Your task to perform on an android device: Check the news Image 0: 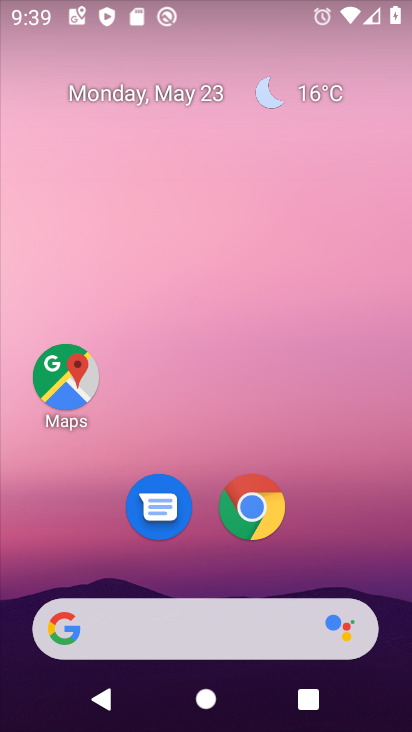
Step 0: click (116, 625)
Your task to perform on an android device: Check the news Image 1: 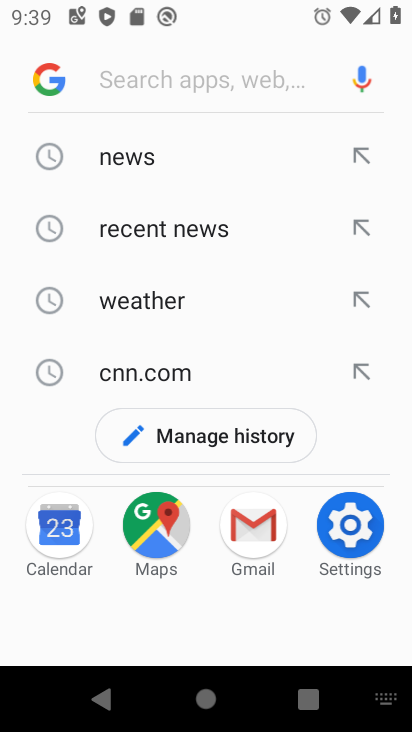
Step 1: click (134, 148)
Your task to perform on an android device: Check the news Image 2: 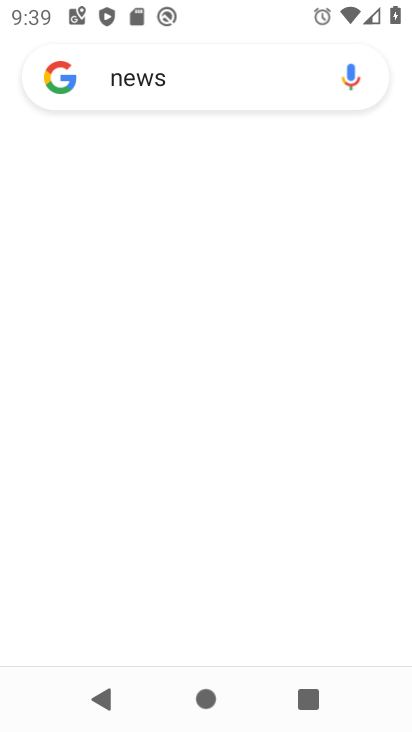
Step 2: click (143, 161)
Your task to perform on an android device: Check the news Image 3: 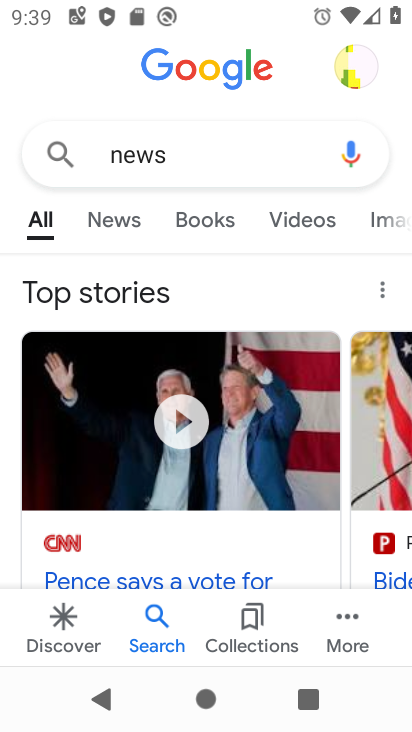
Step 3: click (108, 226)
Your task to perform on an android device: Check the news Image 4: 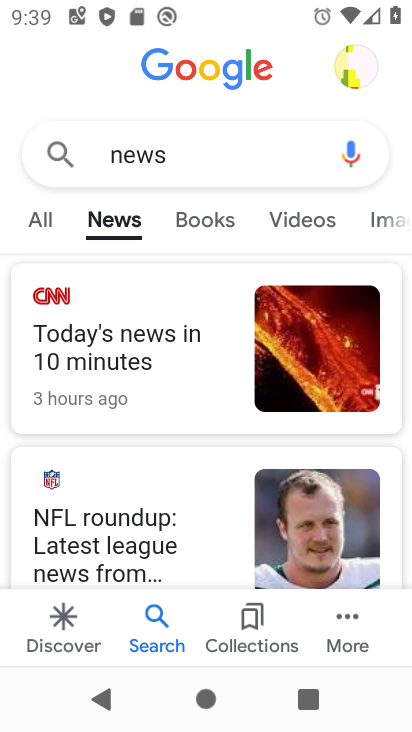
Step 4: task complete